Your task to perform on an android device: change the clock style Image 0: 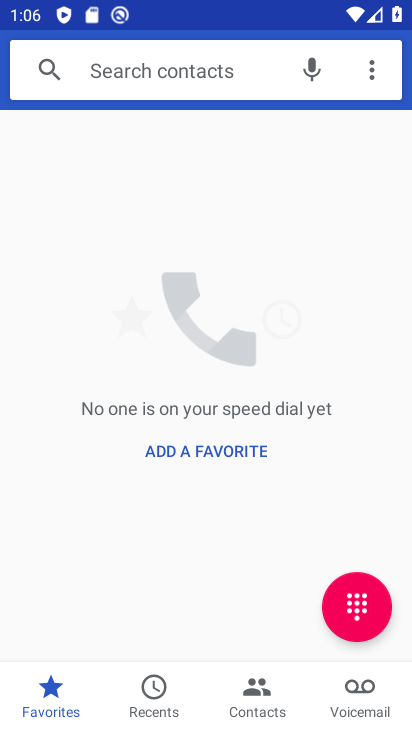
Step 0: press home button
Your task to perform on an android device: change the clock style Image 1: 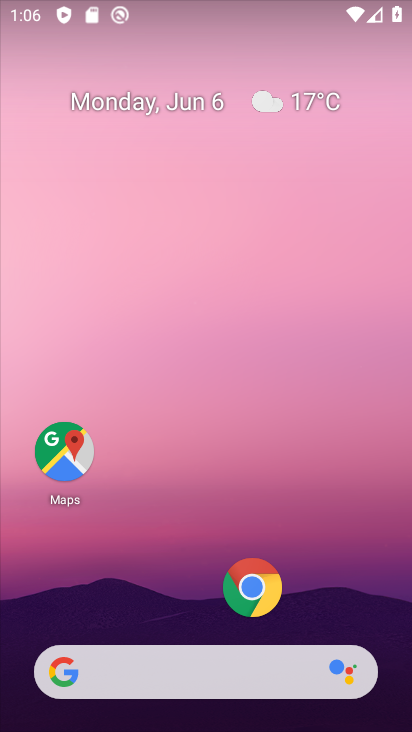
Step 1: drag from (184, 617) to (130, 0)
Your task to perform on an android device: change the clock style Image 2: 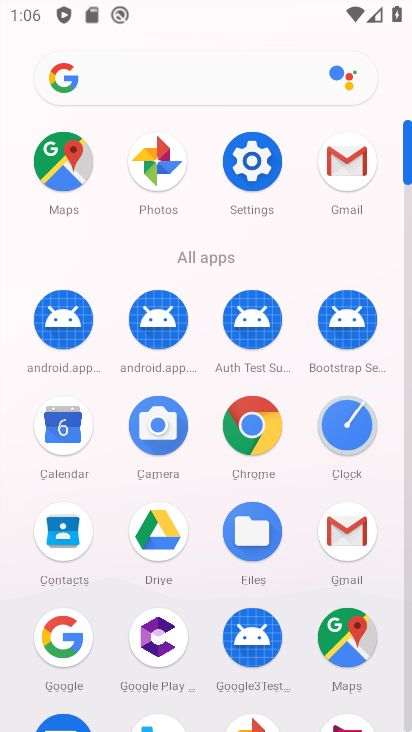
Step 2: click (349, 439)
Your task to perform on an android device: change the clock style Image 3: 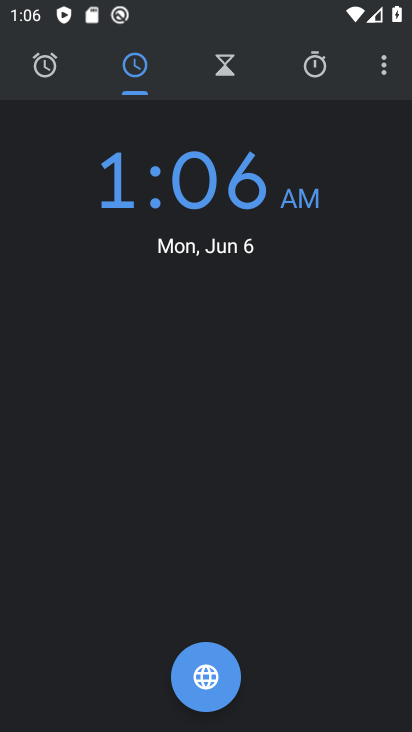
Step 3: click (383, 75)
Your task to perform on an android device: change the clock style Image 4: 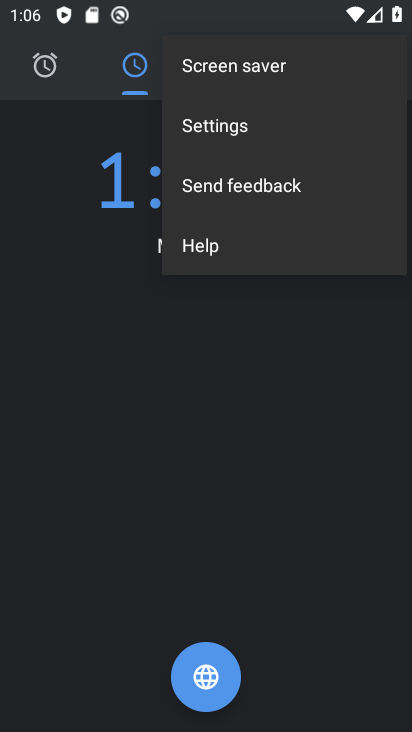
Step 4: click (218, 139)
Your task to perform on an android device: change the clock style Image 5: 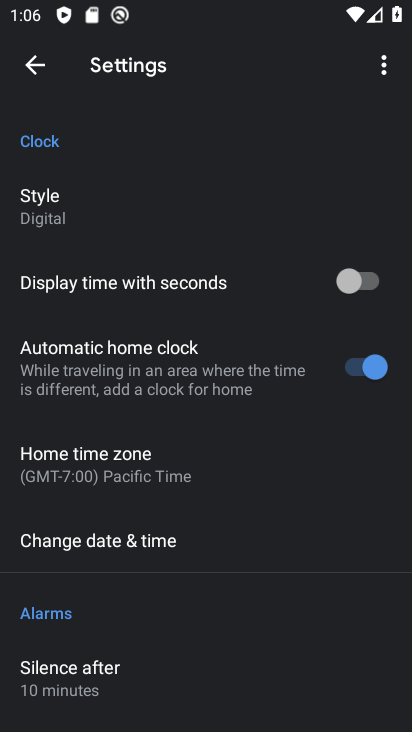
Step 5: click (72, 218)
Your task to perform on an android device: change the clock style Image 6: 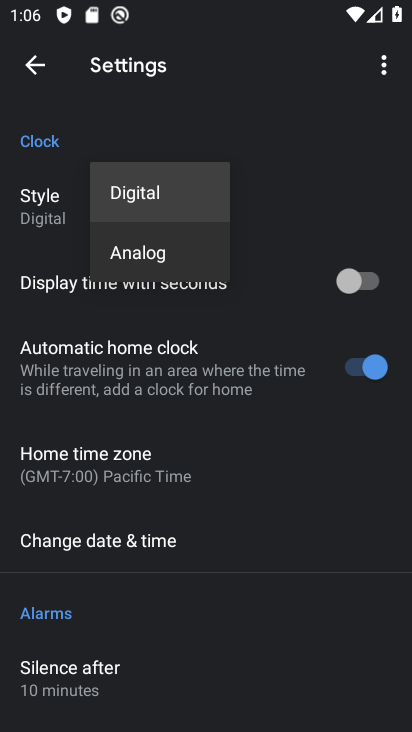
Step 6: click (152, 259)
Your task to perform on an android device: change the clock style Image 7: 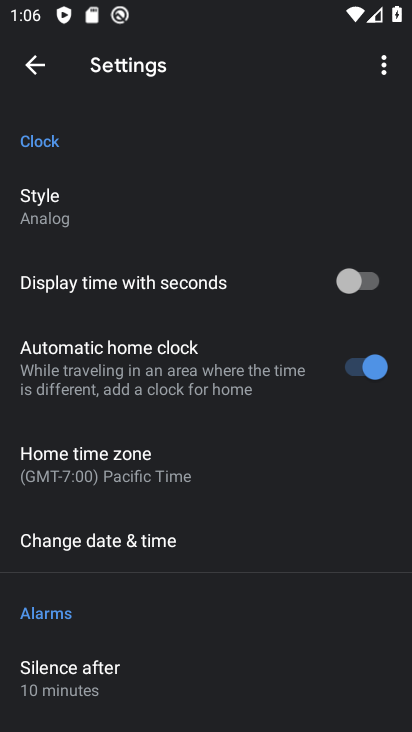
Step 7: task complete